Your task to perform on an android device: Open the stopwatch Image 0: 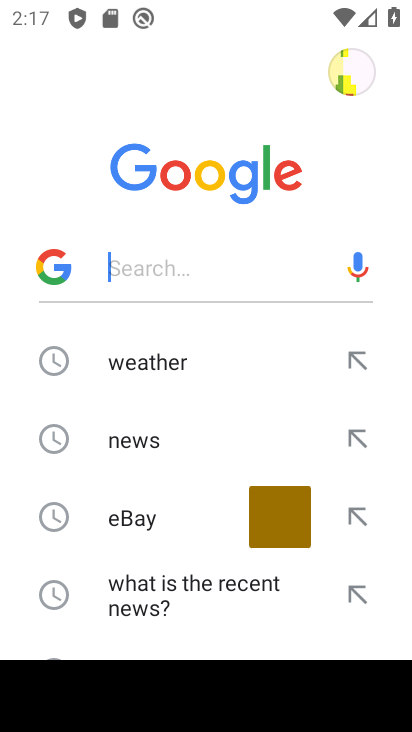
Step 0: press back button
Your task to perform on an android device: Open the stopwatch Image 1: 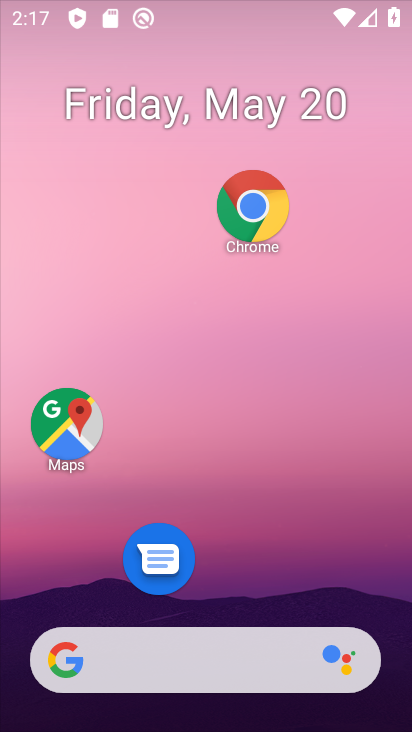
Step 1: drag from (277, 619) to (163, 66)
Your task to perform on an android device: Open the stopwatch Image 2: 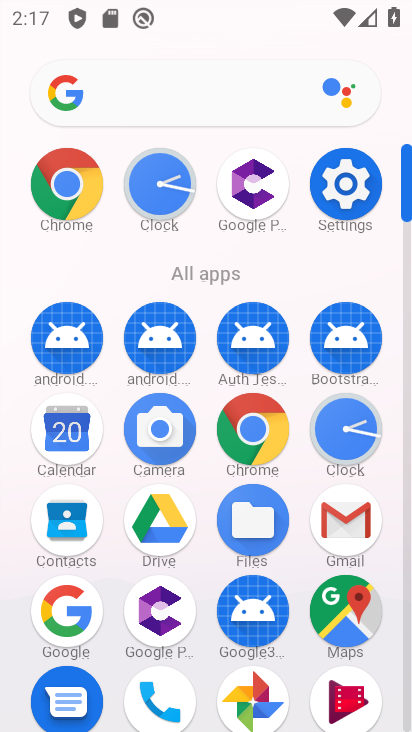
Step 2: click (369, 434)
Your task to perform on an android device: Open the stopwatch Image 3: 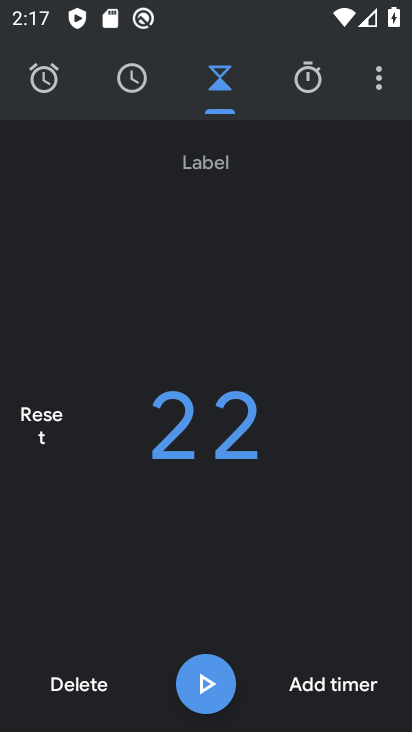
Step 3: click (293, 101)
Your task to perform on an android device: Open the stopwatch Image 4: 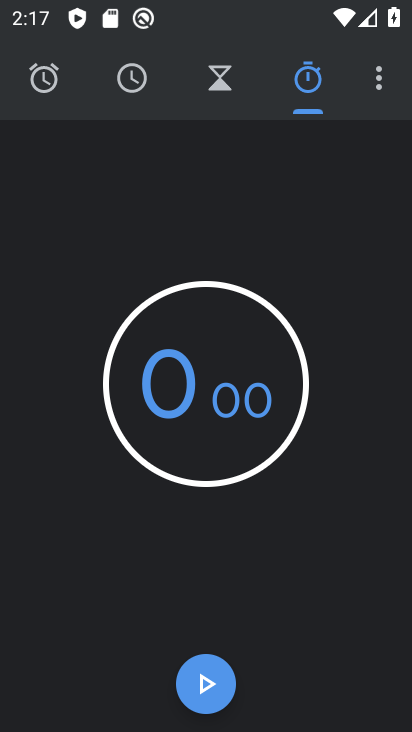
Step 4: click (196, 677)
Your task to perform on an android device: Open the stopwatch Image 5: 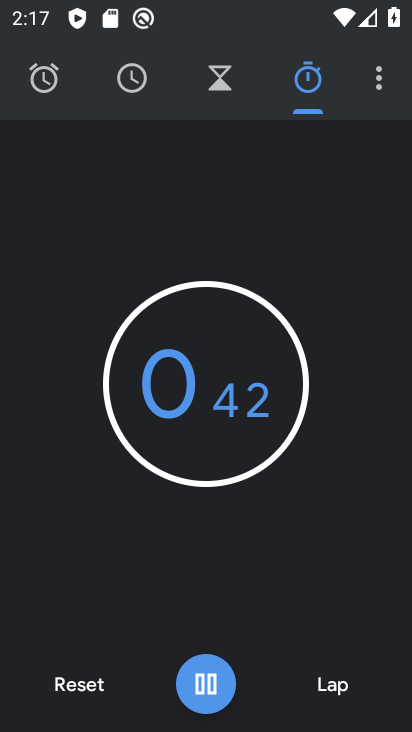
Step 5: click (199, 675)
Your task to perform on an android device: Open the stopwatch Image 6: 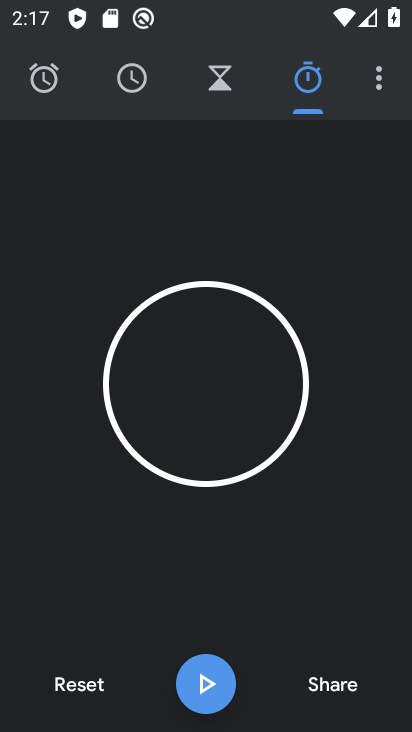
Step 6: task complete